Your task to perform on an android device: add a contact Image 0: 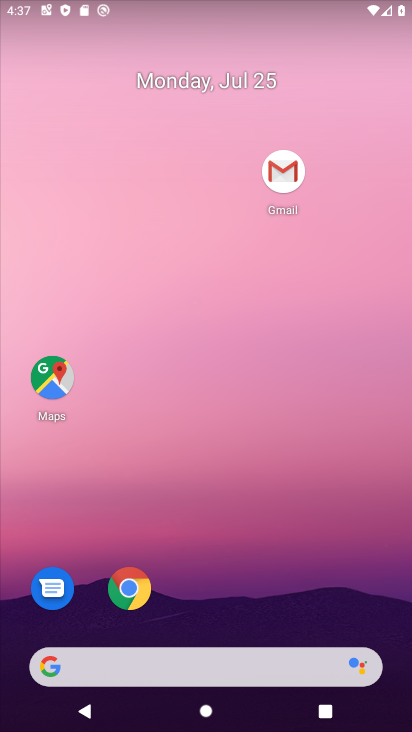
Step 0: drag from (345, 561) to (282, 1)
Your task to perform on an android device: add a contact Image 1: 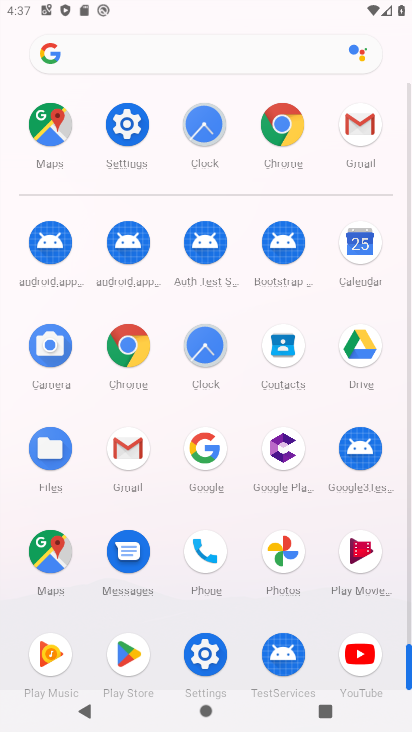
Step 1: click (290, 344)
Your task to perform on an android device: add a contact Image 2: 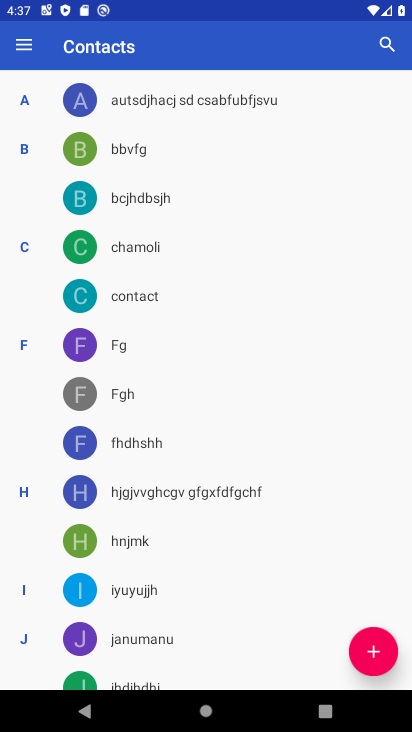
Step 2: click (370, 636)
Your task to perform on an android device: add a contact Image 3: 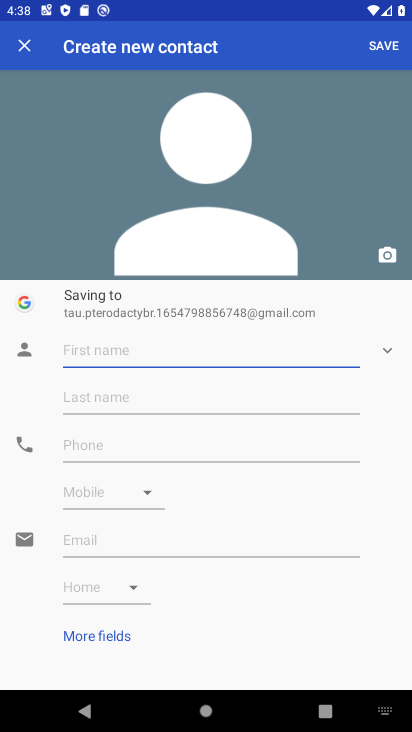
Step 3: type "yaad hai "
Your task to perform on an android device: add a contact Image 4: 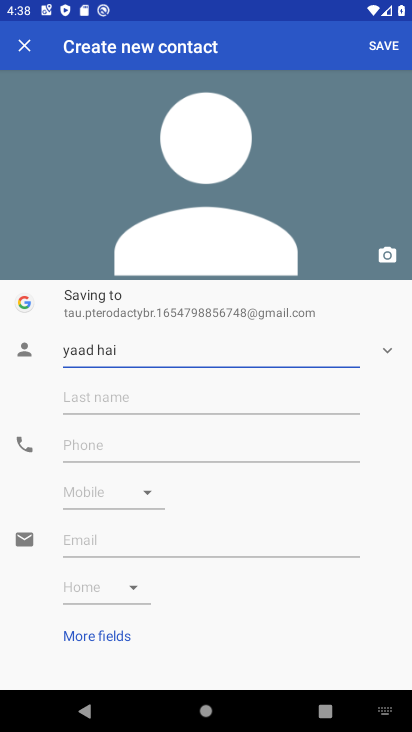
Step 4: click (385, 52)
Your task to perform on an android device: add a contact Image 5: 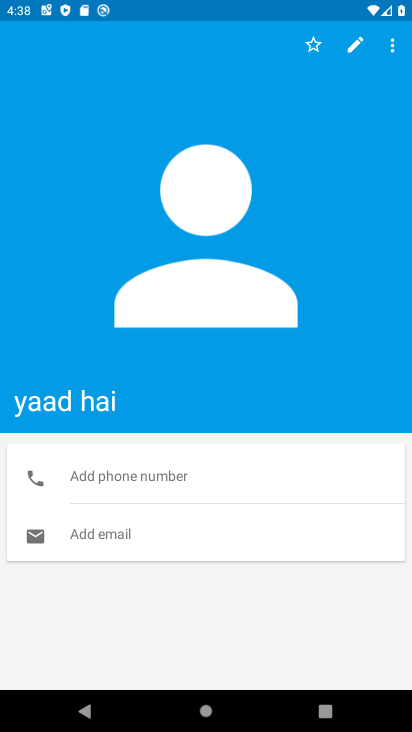
Step 5: task complete